Your task to perform on an android device: find which apps use the phone's location Image 0: 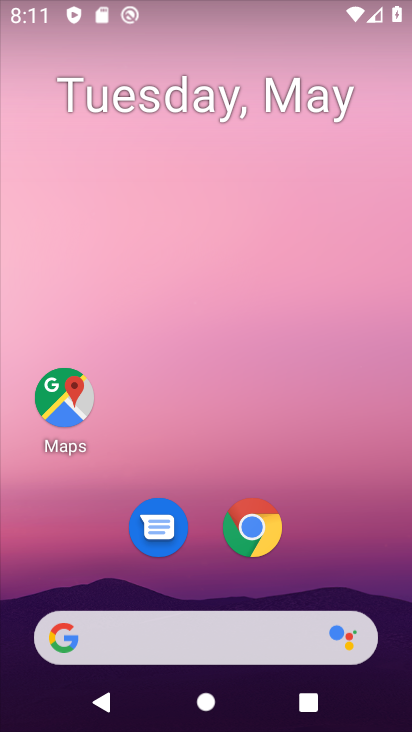
Step 0: drag from (110, 581) to (186, 180)
Your task to perform on an android device: find which apps use the phone's location Image 1: 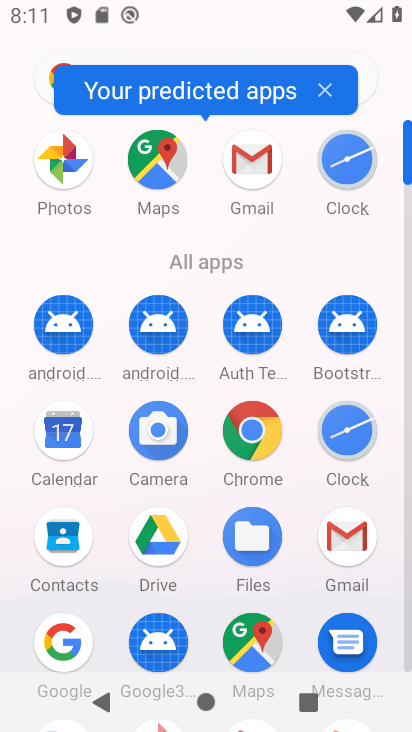
Step 1: drag from (129, 612) to (228, 367)
Your task to perform on an android device: find which apps use the phone's location Image 2: 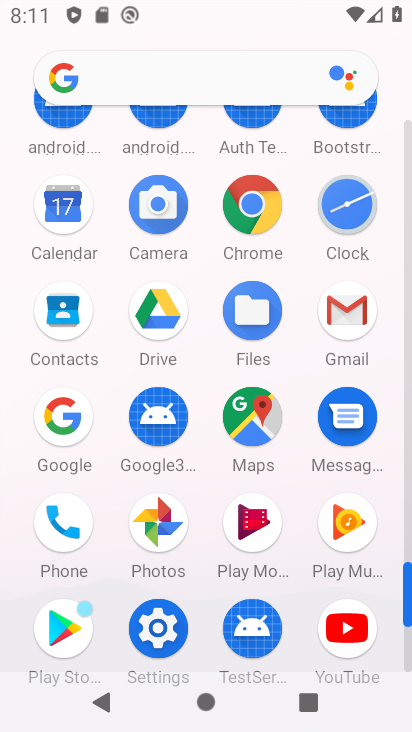
Step 2: click (159, 633)
Your task to perform on an android device: find which apps use the phone's location Image 3: 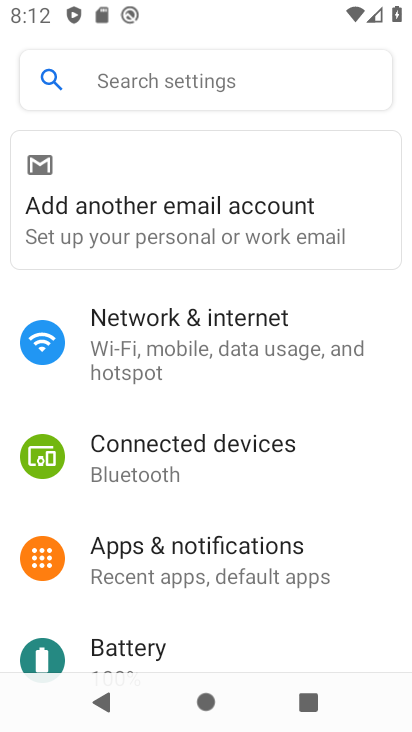
Step 3: drag from (175, 588) to (267, 290)
Your task to perform on an android device: find which apps use the phone's location Image 4: 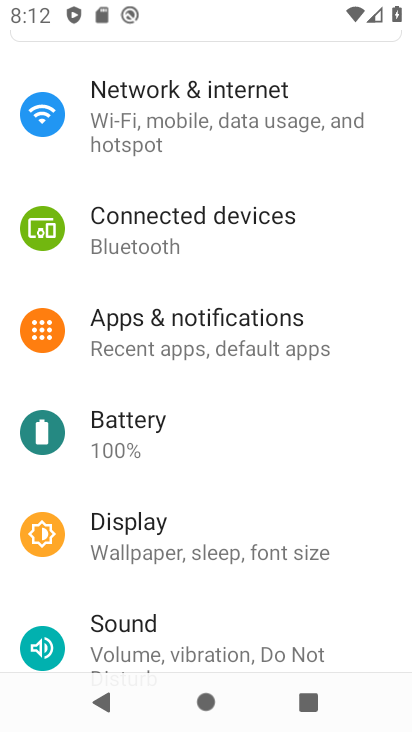
Step 4: drag from (178, 562) to (274, 231)
Your task to perform on an android device: find which apps use the phone's location Image 5: 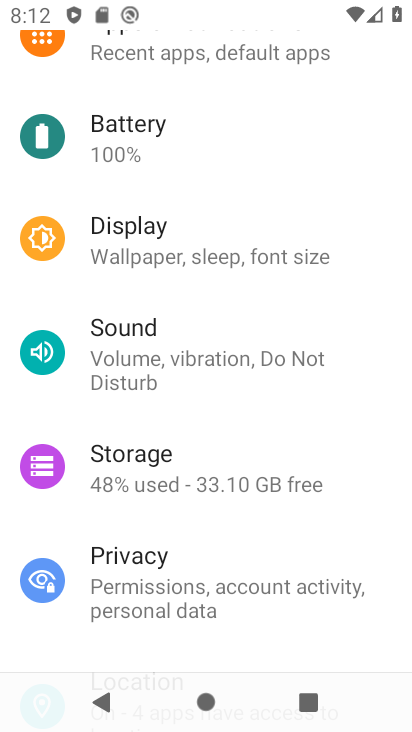
Step 5: drag from (184, 564) to (268, 231)
Your task to perform on an android device: find which apps use the phone's location Image 6: 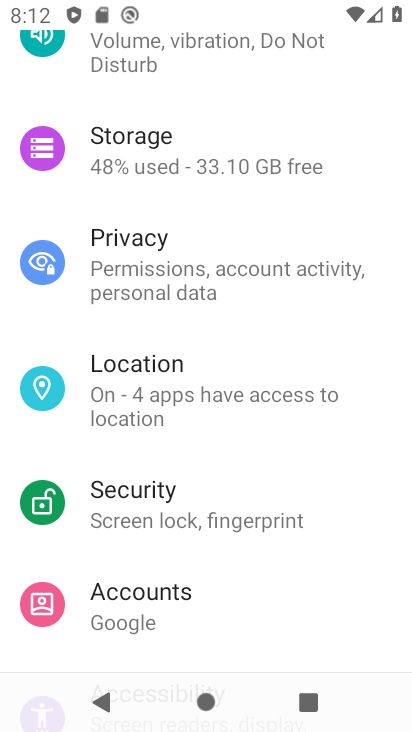
Step 6: click (161, 404)
Your task to perform on an android device: find which apps use the phone's location Image 7: 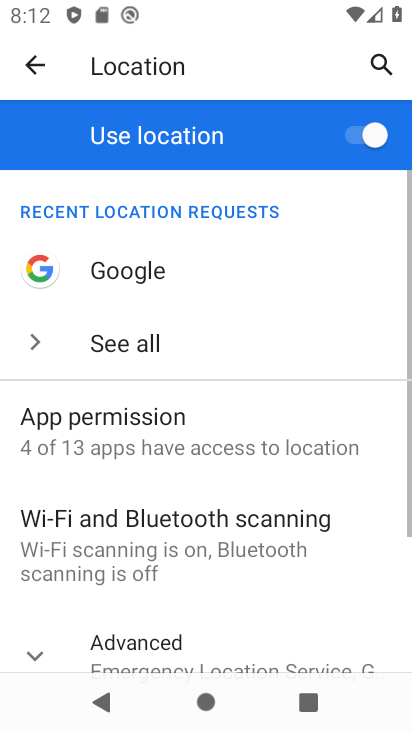
Step 7: drag from (174, 584) to (246, 491)
Your task to perform on an android device: find which apps use the phone's location Image 8: 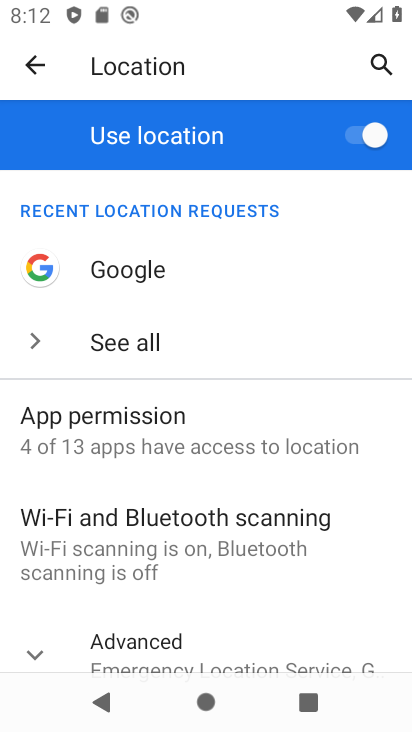
Step 8: click (192, 423)
Your task to perform on an android device: find which apps use the phone's location Image 9: 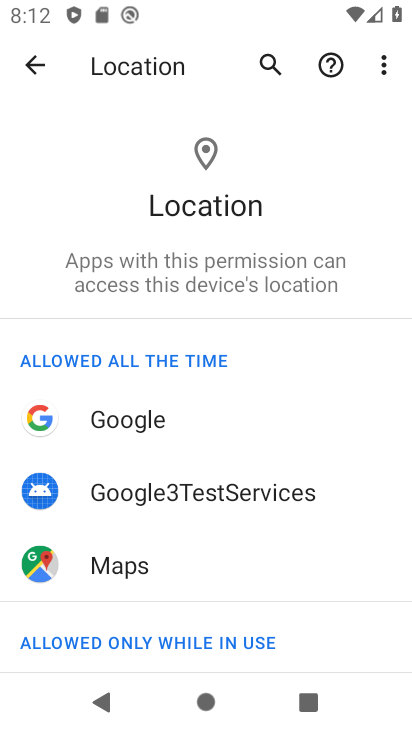
Step 9: task complete